Your task to perform on an android device: allow cookies in the chrome app Image 0: 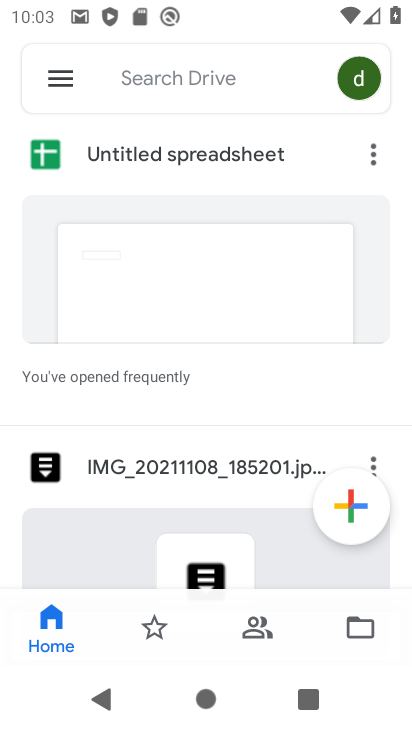
Step 0: press home button
Your task to perform on an android device: allow cookies in the chrome app Image 1: 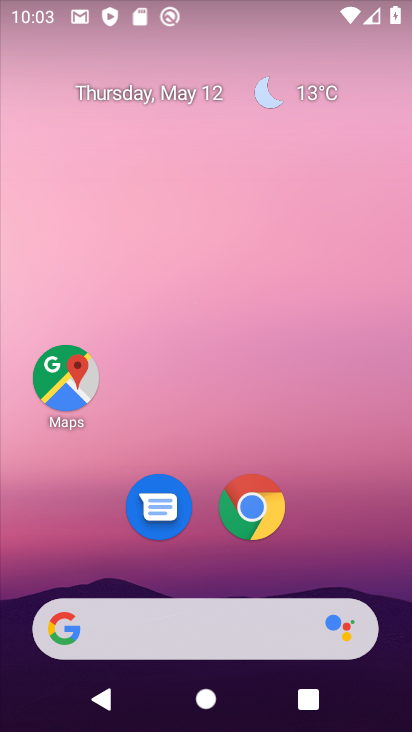
Step 1: click (248, 522)
Your task to perform on an android device: allow cookies in the chrome app Image 2: 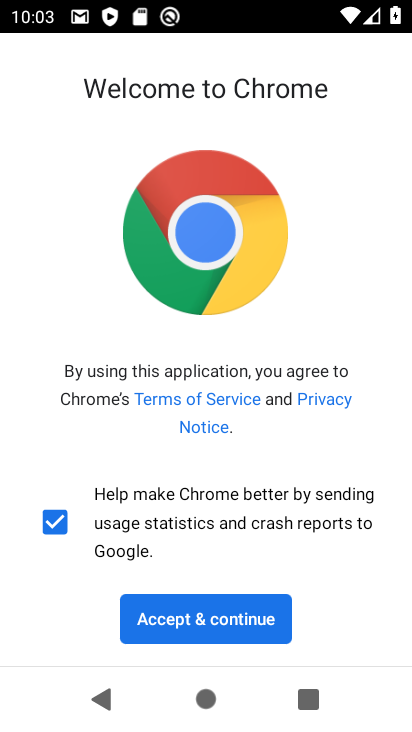
Step 2: click (195, 622)
Your task to perform on an android device: allow cookies in the chrome app Image 3: 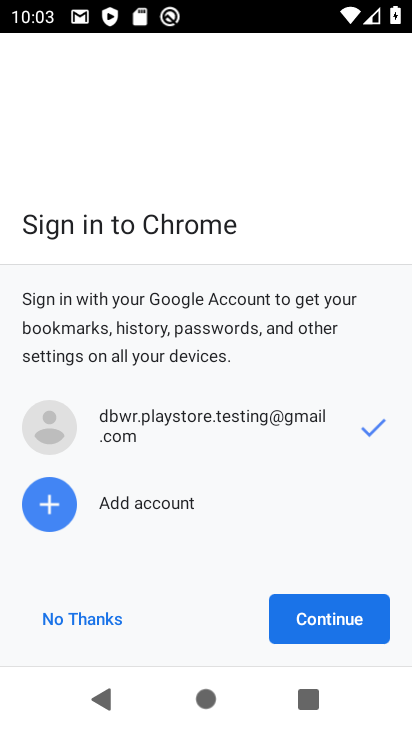
Step 3: click (294, 617)
Your task to perform on an android device: allow cookies in the chrome app Image 4: 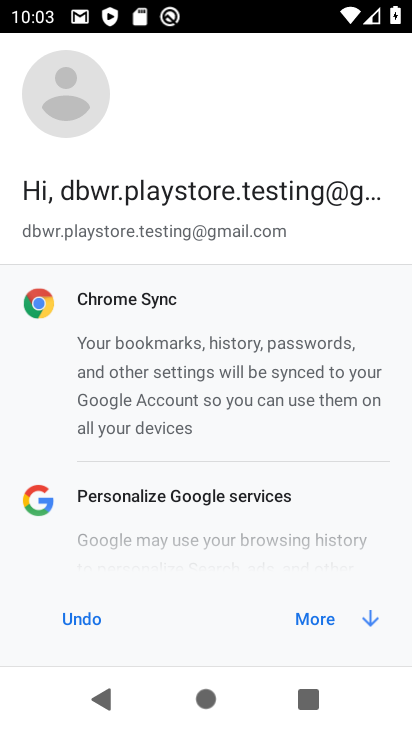
Step 4: click (316, 612)
Your task to perform on an android device: allow cookies in the chrome app Image 5: 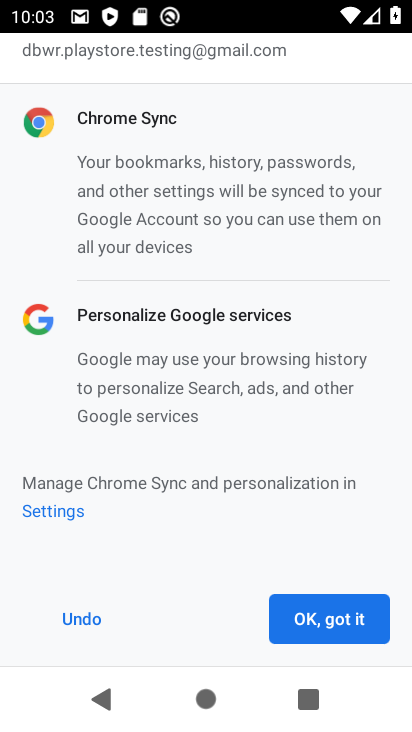
Step 5: click (316, 612)
Your task to perform on an android device: allow cookies in the chrome app Image 6: 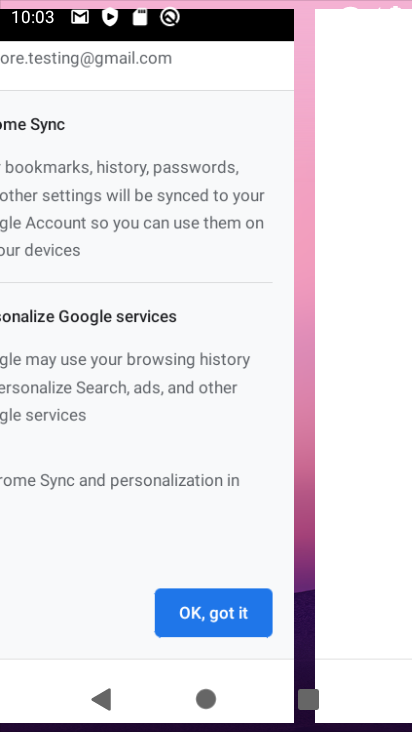
Step 6: click (316, 612)
Your task to perform on an android device: allow cookies in the chrome app Image 7: 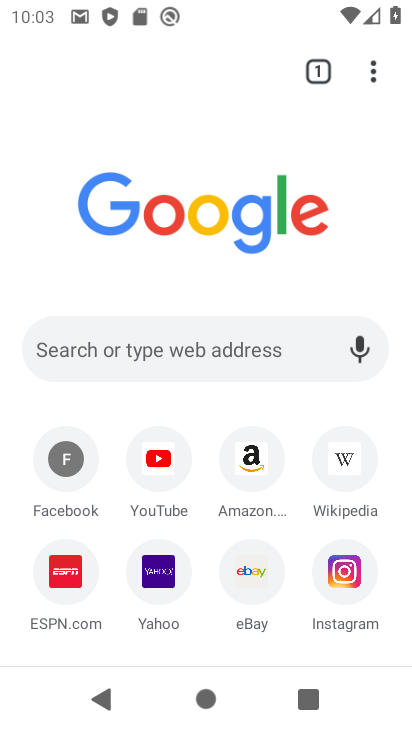
Step 7: drag from (374, 72) to (145, 497)
Your task to perform on an android device: allow cookies in the chrome app Image 8: 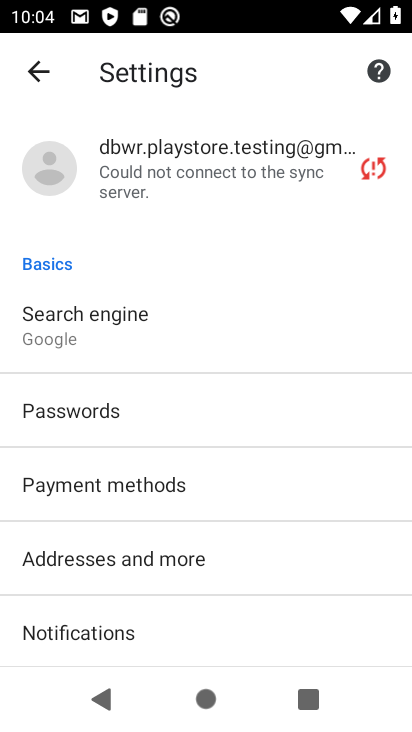
Step 8: drag from (226, 565) to (228, 209)
Your task to perform on an android device: allow cookies in the chrome app Image 9: 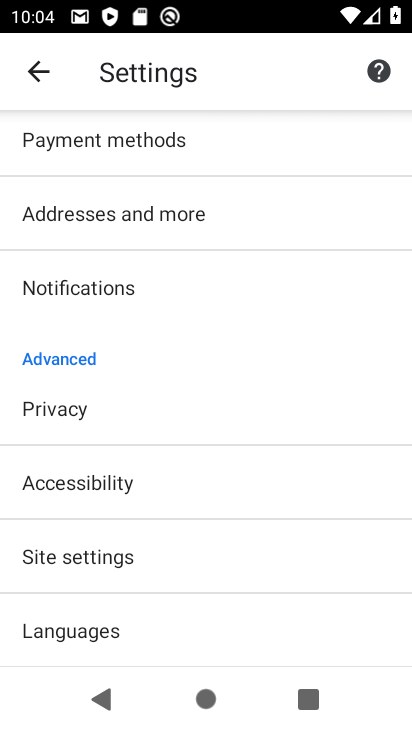
Step 9: click (107, 552)
Your task to perform on an android device: allow cookies in the chrome app Image 10: 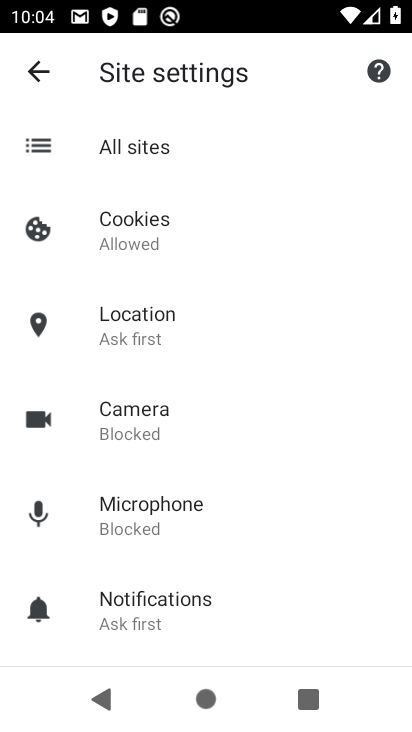
Step 10: click (147, 209)
Your task to perform on an android device: allow cookies in the chrome app Image 11: 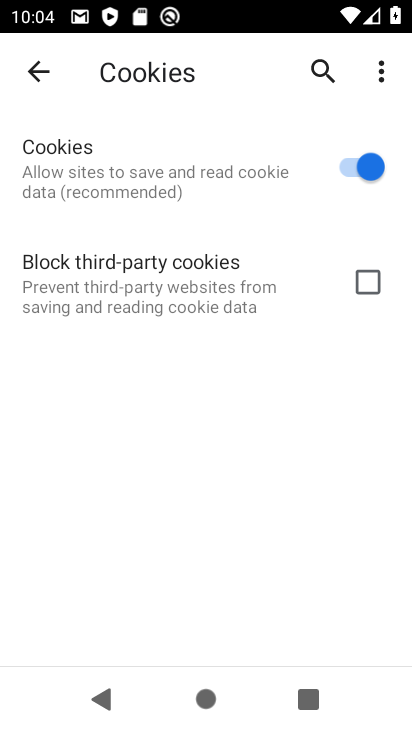
Step 11: task complete